Your task to perform on an android device: allow notifications from all sites in the chrome app Image 0: 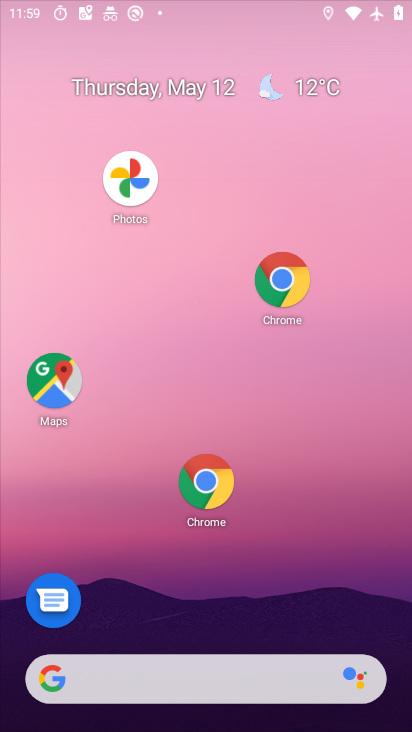
Step 0: drag from (358, 633) to (144, 168)
Your task to perform on an android device: allow notifications from all sites in the chrome app Image 1: 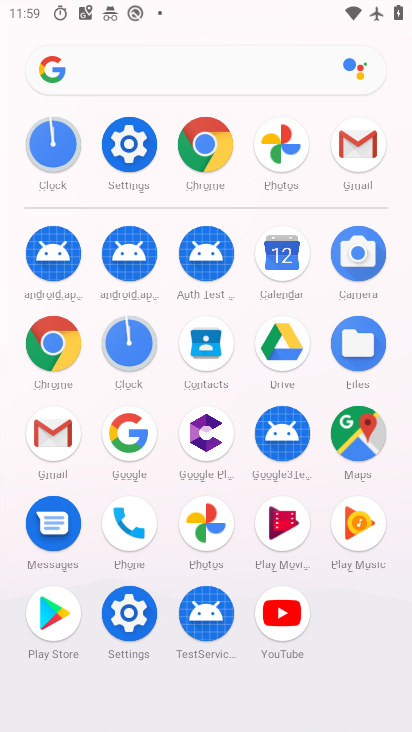
Step 1: click (201, 147)
Your task to perform on an android device: allow notifications from all sites in the chrome app Image 2: 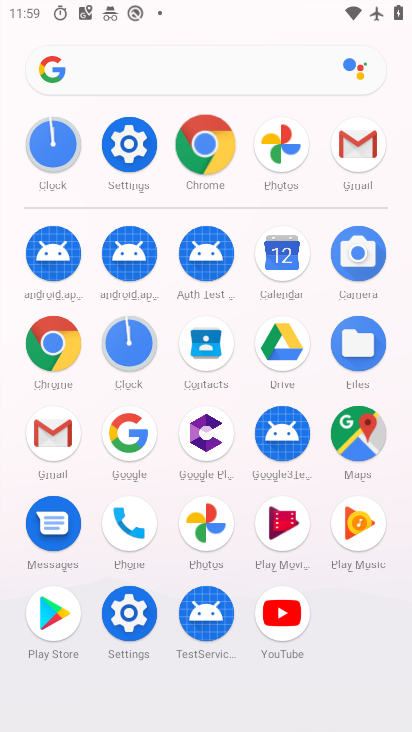
Step 2: click (201, 147)
Your task to perform on an android device: allow notifications from all sites in the chrome app Image 3: 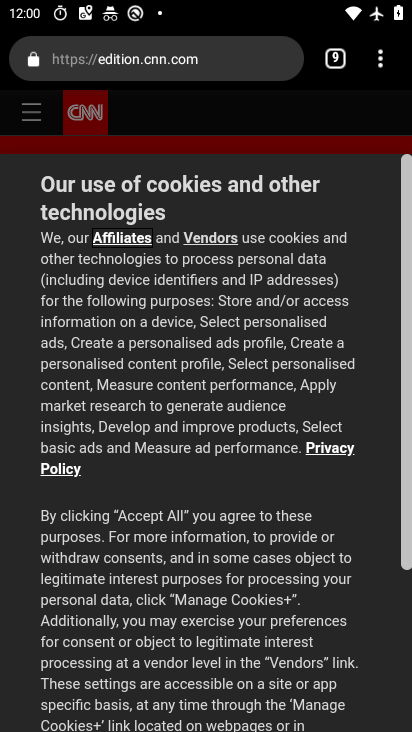
Step 3: click (380, 64)
Your task to perform on an android device: allow notifications from all sites in the chrome app Image 4: 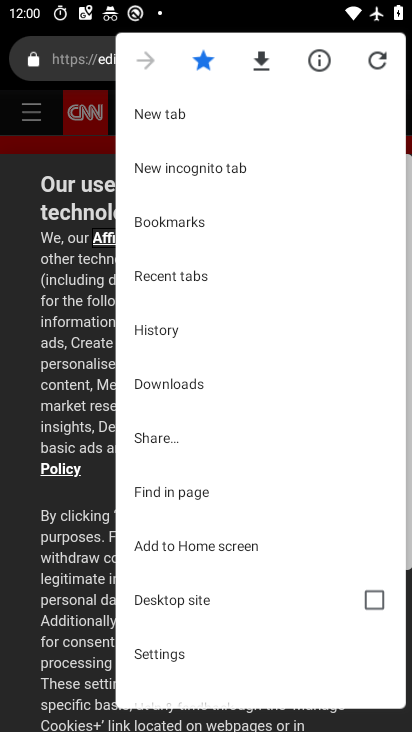
Step 4: click (153, 652)
Your task to perform on an android device: allow notifications from all sites in the chrome app Image 5: 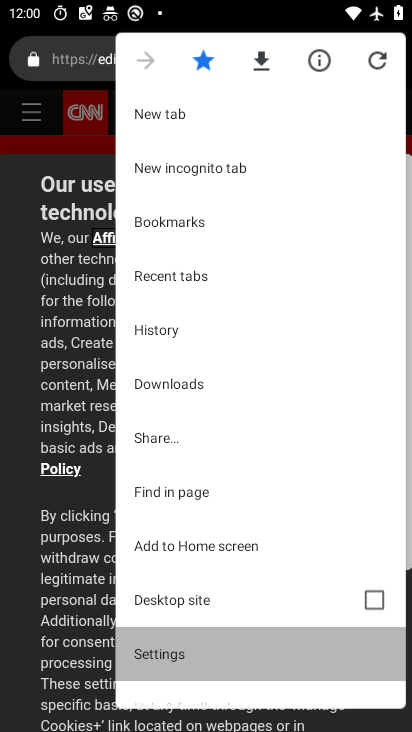
Step 5: click (153, 652)
Your task to perform on an android device: allow notifications from all sites in the chrome app Image 6: 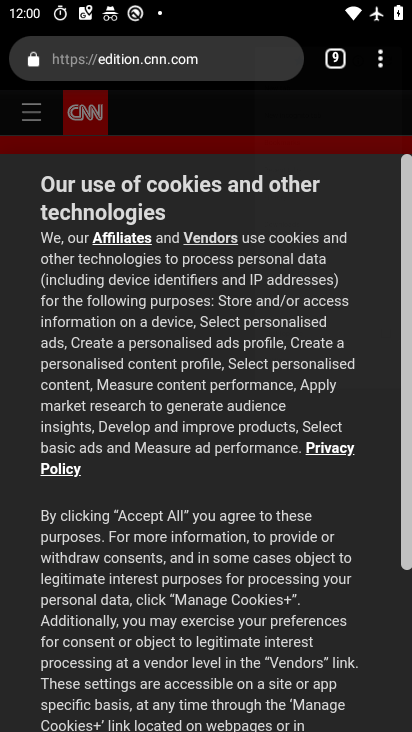
Step 6: click (153, 652)
Your task to perform on an android device: allow notifications from all sites in the chrome app Image 7: 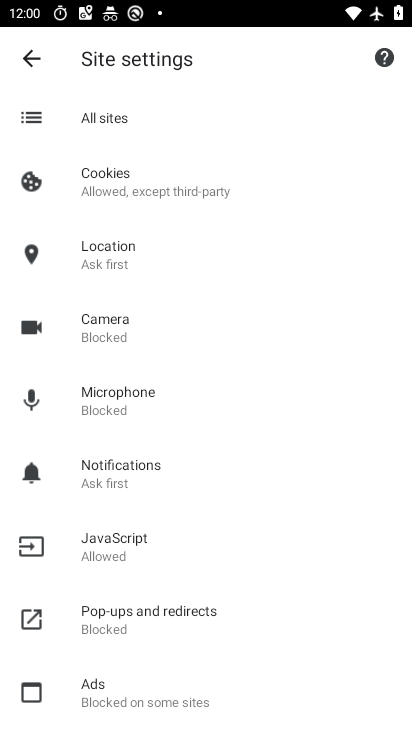
Step 7: click (101, 115)
Your task to perform on an android device: allow notifications from all sites in the chrome app Image 8: 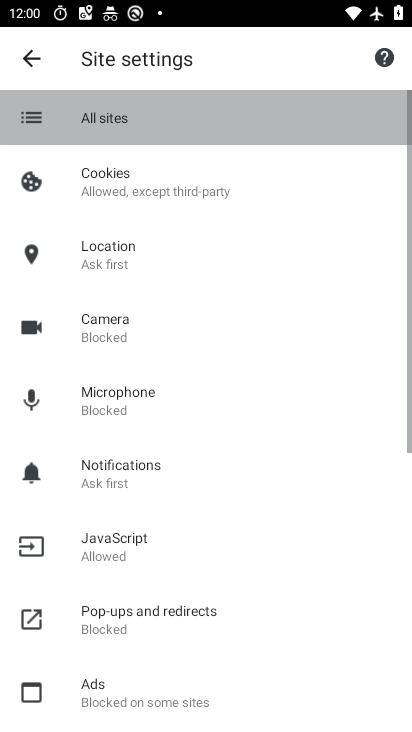
Step 8: click (101, 115)
Your task to perform on an android device: allow notifications from all sites in the chrome app Image 9: 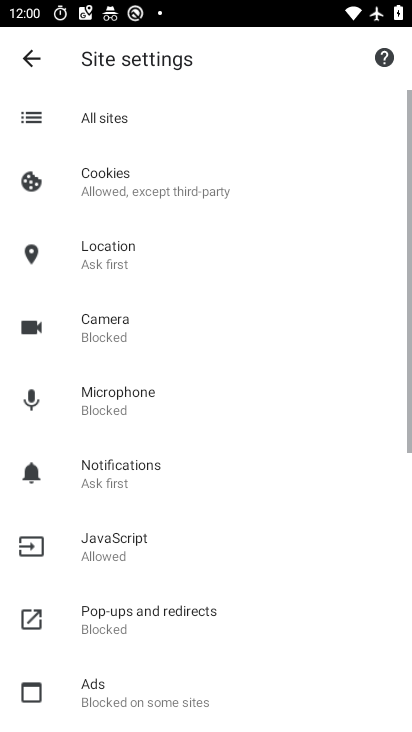
Step 9: click (101, 115)
Your task to perform on an android device: allow notifications from all sites in the chrome app Image 10: 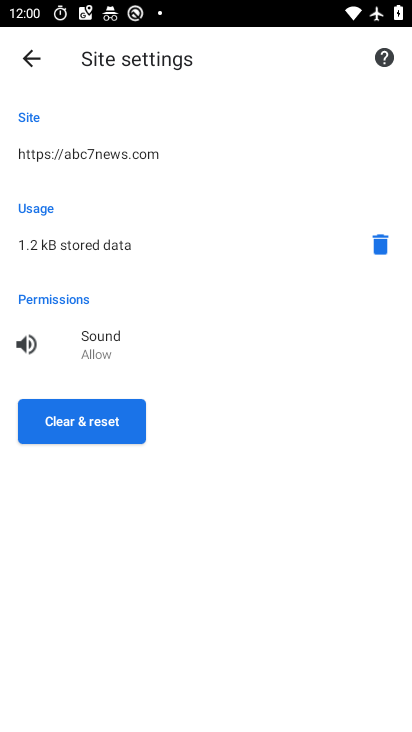
Step 10: click (68, 415)
Your task to perform on an android device: allow notifications from all sites in the chrome app Image 11: 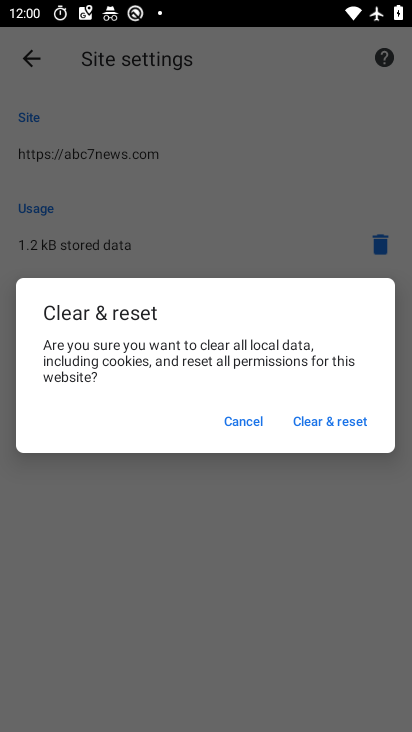
Step 11: click (255, 407)
Your task to perform on an android device: allow notifications from all sites in the chrome app Image 12: 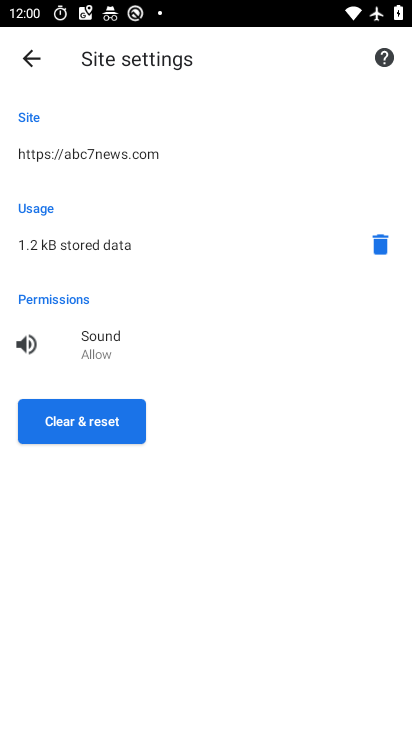
Step 12: click (78, 146)
Your task to perform on an android device: allow notifications from all sites in the chrome app Image 13: 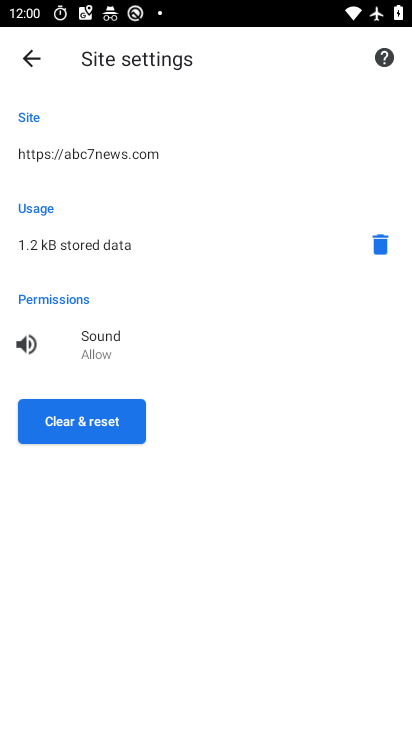
Step 13: click (78, 154)
Your task to perform on an android device: allow notifications from all sites in the chrome app Image 14: 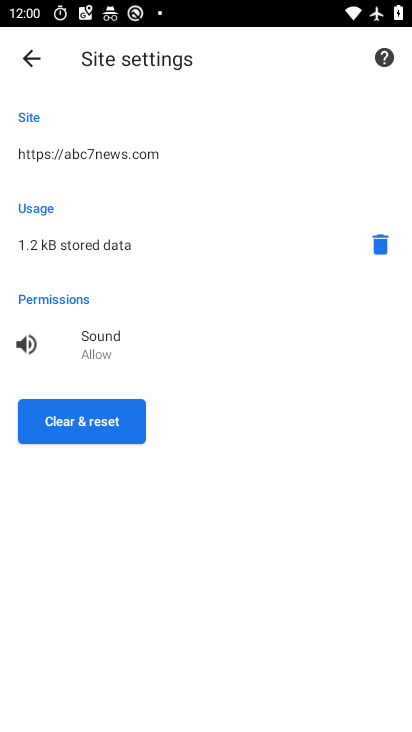
Step 14: click (78, 154)
Your task to perform on an android device: allow notifications from all sites in the chrome app Image 15: 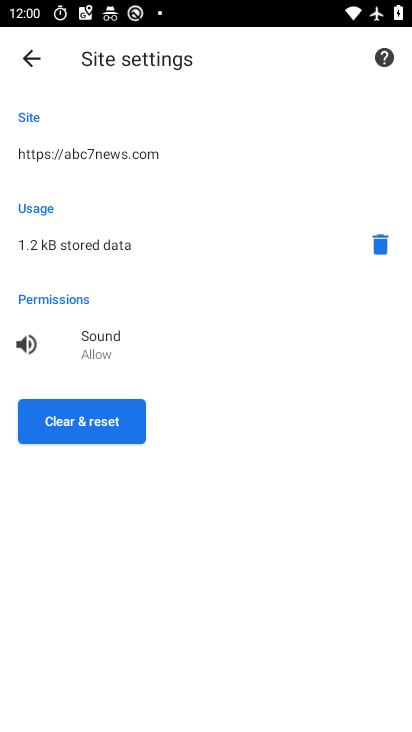
Step 15: click (99, 146)
Your task to perform on an android device: allow notifications from all sites in the chrome app Image 16: 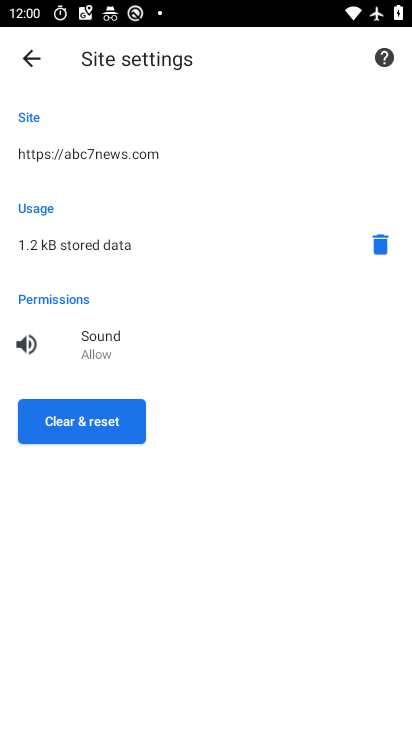
Step 16: click (100, 155)
Your task to perform on an android device: allow notifications from all sites in the chrome app Image 17: 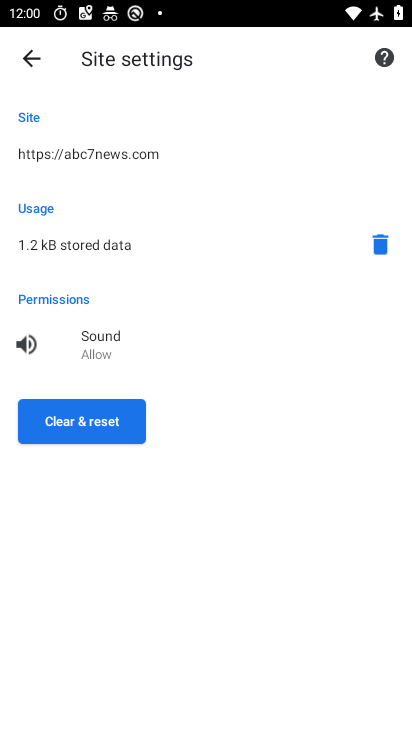
Step 17: click (101, 156)
Your task to perform on an android device: allow notifications from all sites in the chrome app Image 18: 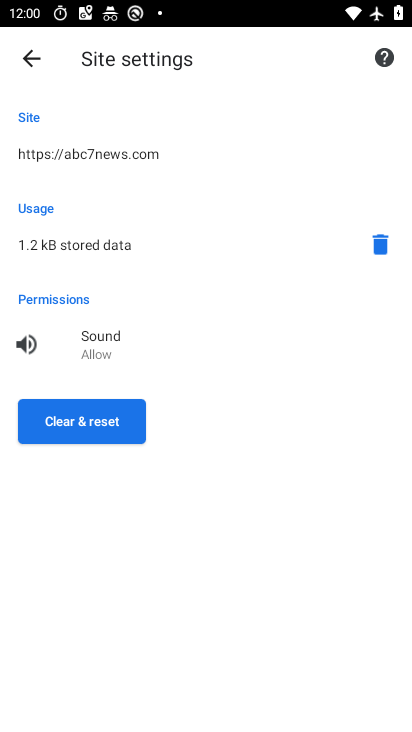
Step 18: click (101, 156)
Your task to perform on an android device: allow notifications from all sites in the chrome app Image 19: 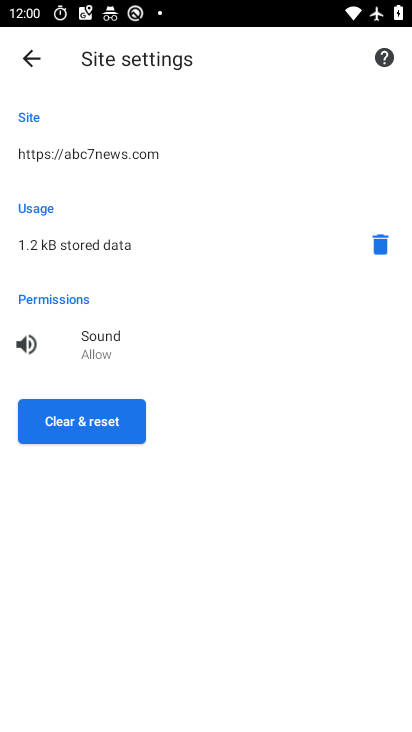
Step 19: click (101, 156)
Your task to perform on an android device: allow notifications from all sites in the chrome app Image 20: 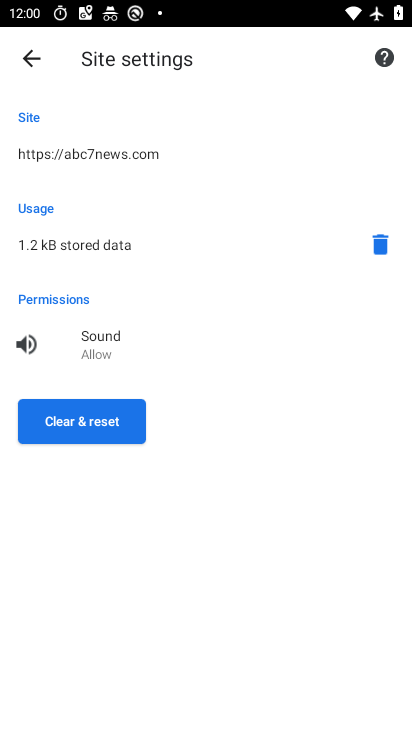
Step 20: task complete